Your task to perform on an android device: open chrome and create a bookmark for the current page Image 0: 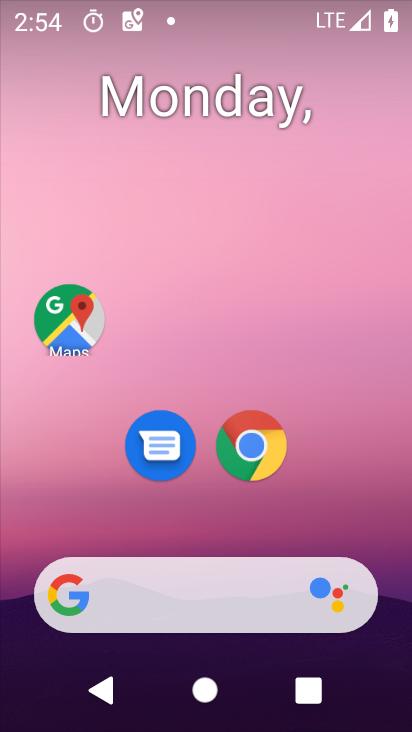
Step 0: click (283, 453)
Your task to perform on an android device: open chrome and create a bookmark for the current page Image 1: 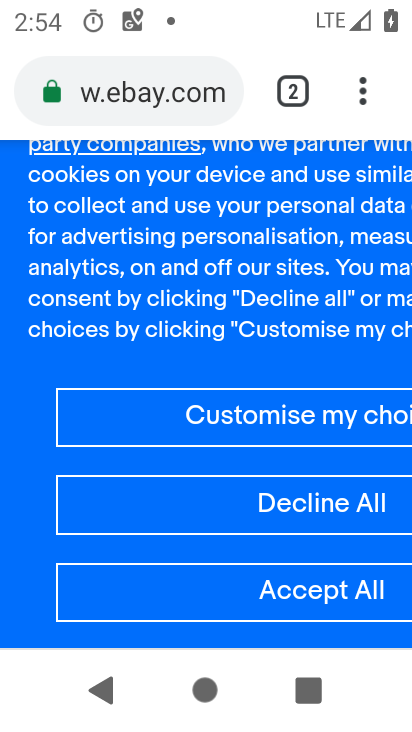
Step 1: task complete